Your task to perform on an android device: Show me recent news Image 0: 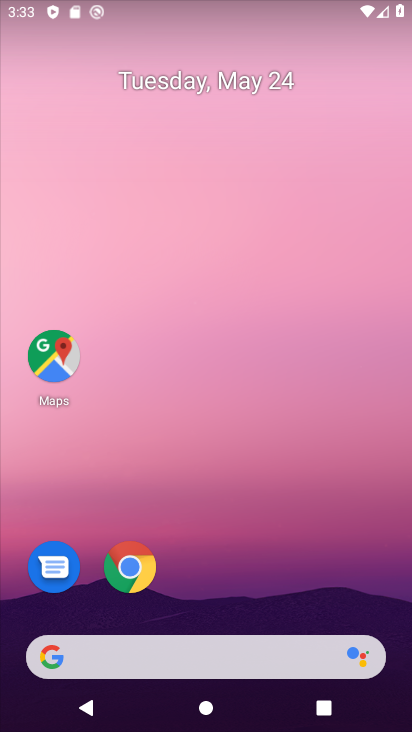
Step 0: drag from (237, 544) to (202, 0)
Your task to perform on an android device: Show me recent news Image 1: 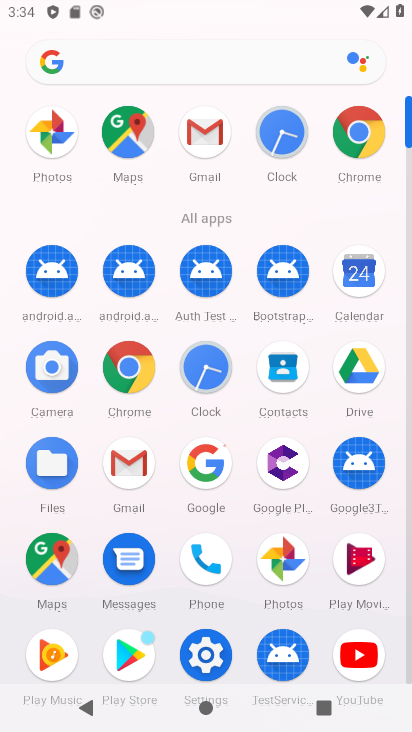
Step 1: click (186, 56)
Your task to perform on an android device: Show me recent news Image 2: 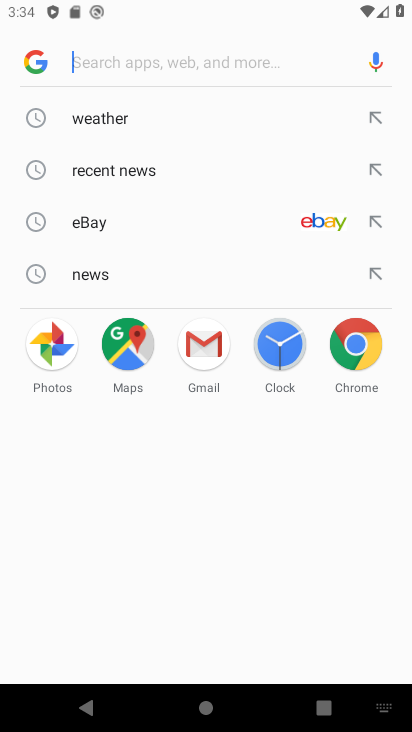
Step 2: click (146, 169)
Your task to perform on an android device: Show me recent news Image 3: 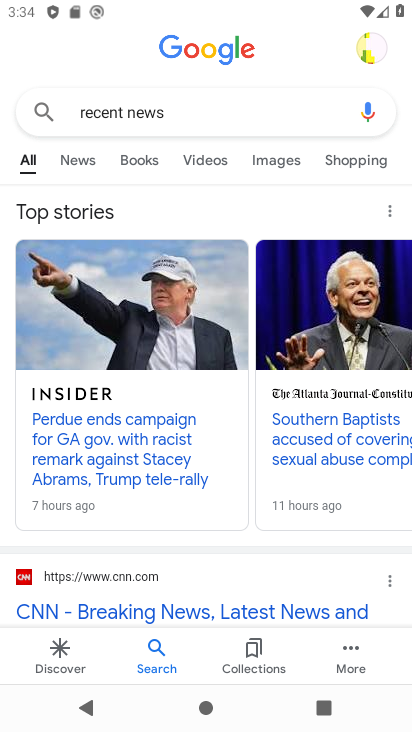
Step 3: task complete